Your task to perform on an android device: open the mobile data screen to see how much data has been used Image 0: 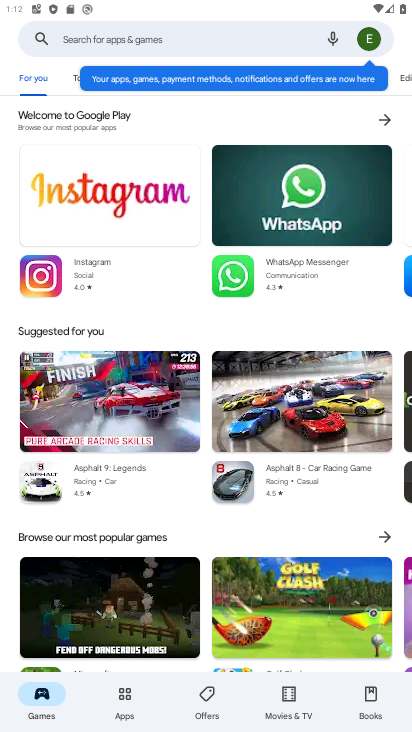
Step 0: press home button
Your task to perform on an android device: open the mobile data screen to see how much data has been used Image 1: 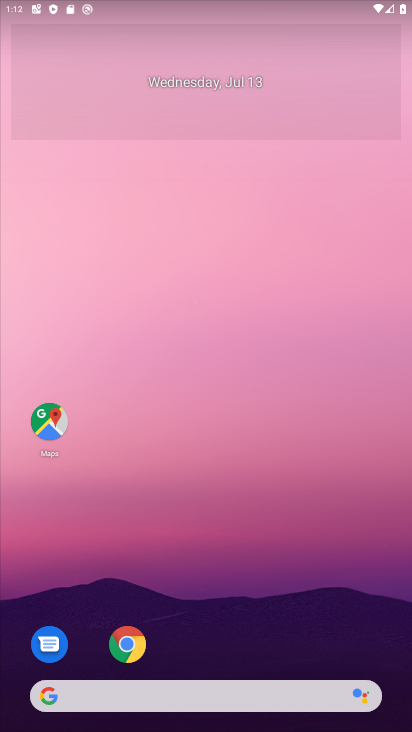
Step 1: press home button
Your task to perform on an android device: open the mobile data screen to see how much data has been used Image 2: 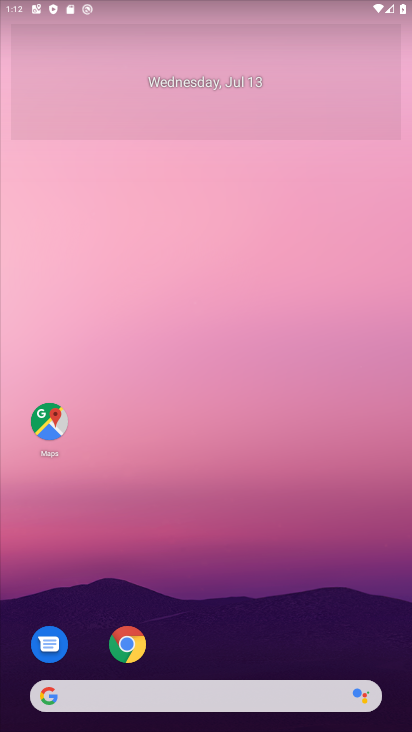
Step 2: drag from (218, 587) to (249, 27)
Your task to perform on an android device: open the mobile data screen to see how much data has been used Image 3: 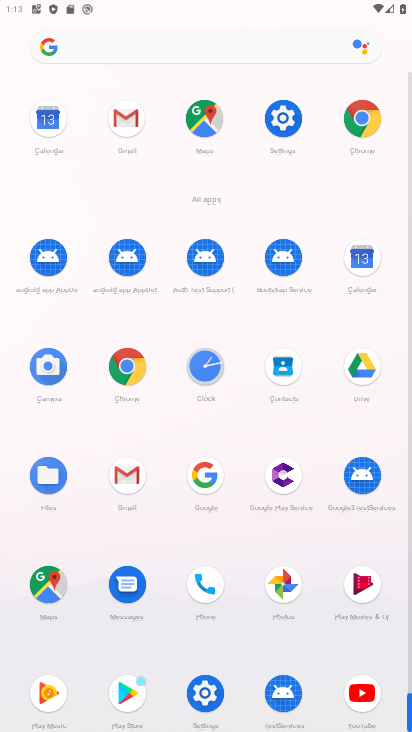
Step 3: click (280, 115)
Your task to perform on an android device: open the mobile data screen to see how much data has been used Image 4: 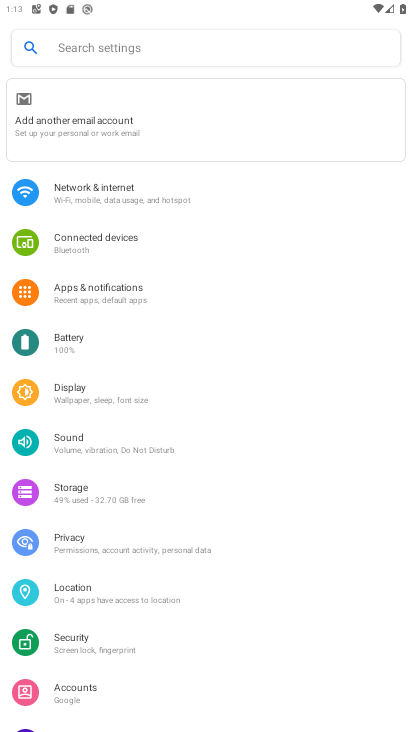
Step 4: click (92, 187)
Your task to perform on an android device: open the mobile data screen to see how much data has been used Image 5: 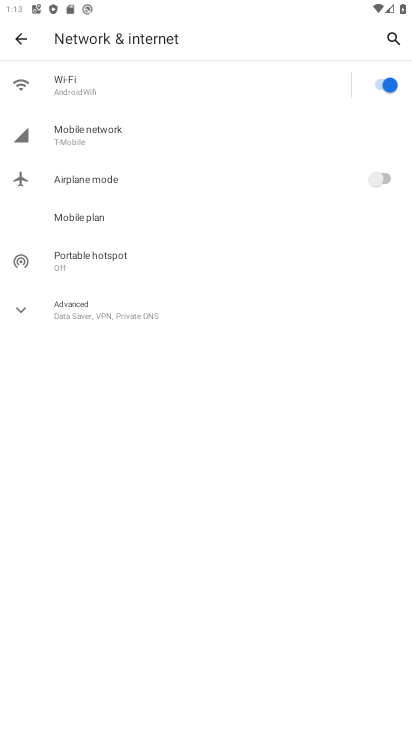
Step 5: click (100, 134)
Your task to perform on an android device: open the mobile data screen to see how much data has been used Image 6: 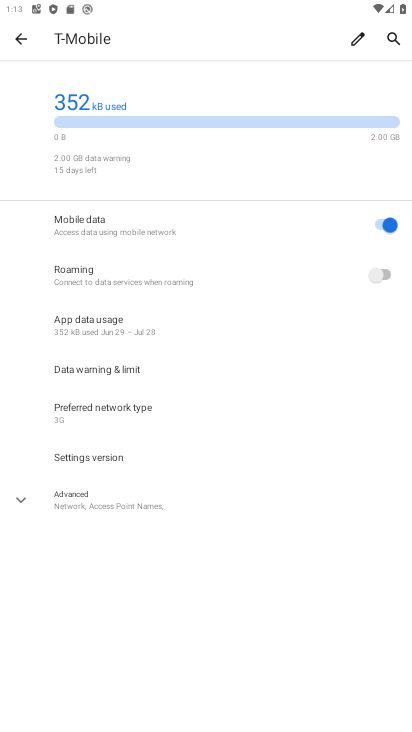
Step 6: task complete